Your task to perform on an android device: Search for vegetarian restaurants on Maps Image 0: 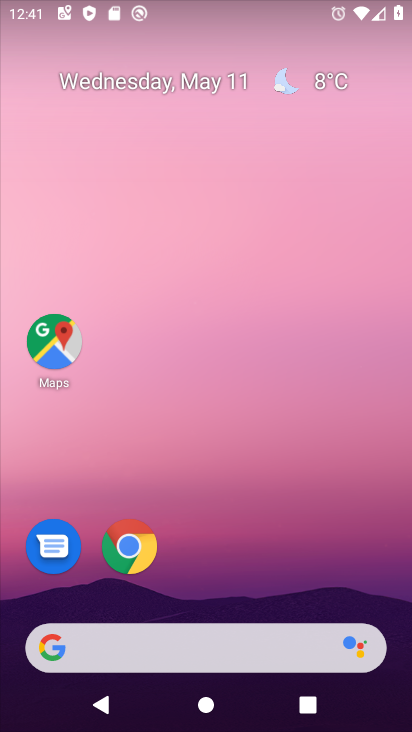
Step 0: drag from (219, 658) to (322, 243)
Your task to perform on an android device: Search for vegetarian restaurants on Maps Image 1: 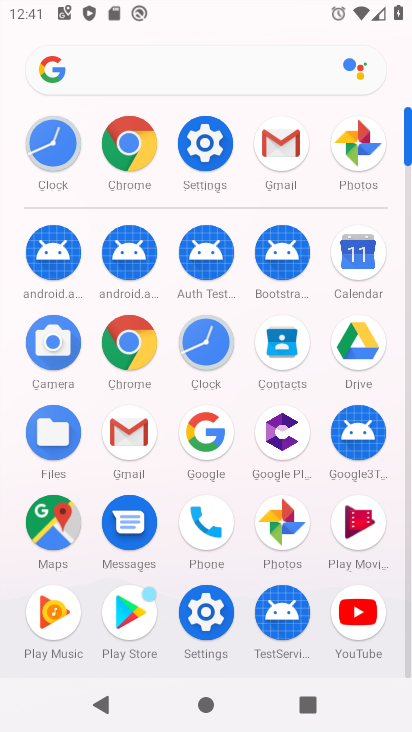
Step 1: click (53, 528)
Your task to perform on an android device: Search for vegetarian restaurants on Maps Image 2: 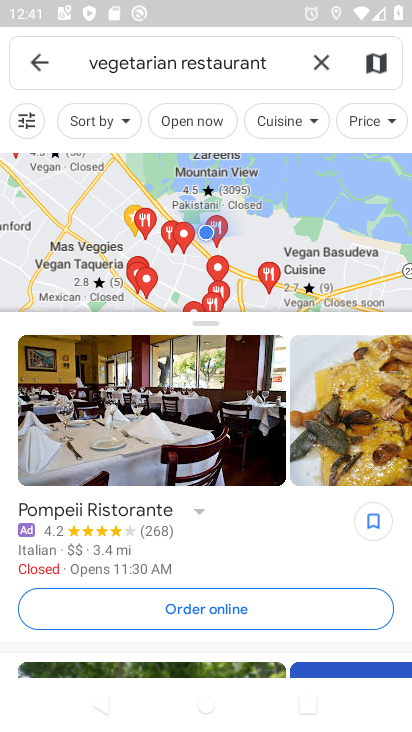
Step 2: task complete